Your task to perform on an android device: set the stopwatch Image 0: 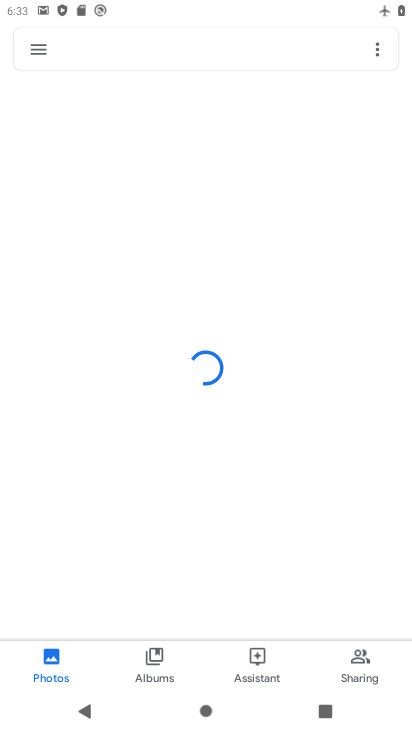
Step 0: press home button
Your task to perform on an android device: set the stopwatch Image 1: 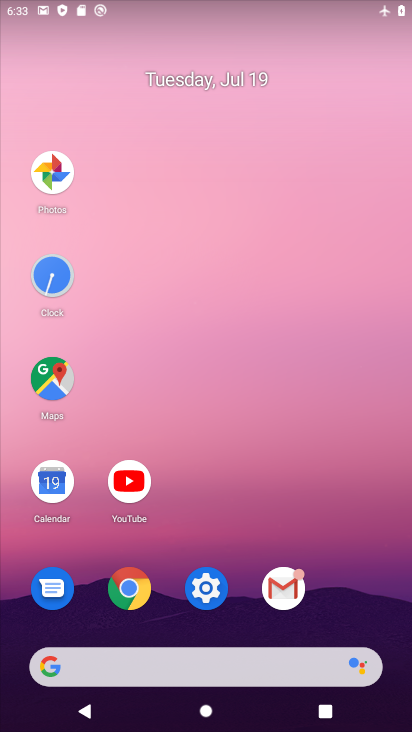
Step 1: click (53, 267)
Your task to perform on an android device: set the stopwatch Image 2: 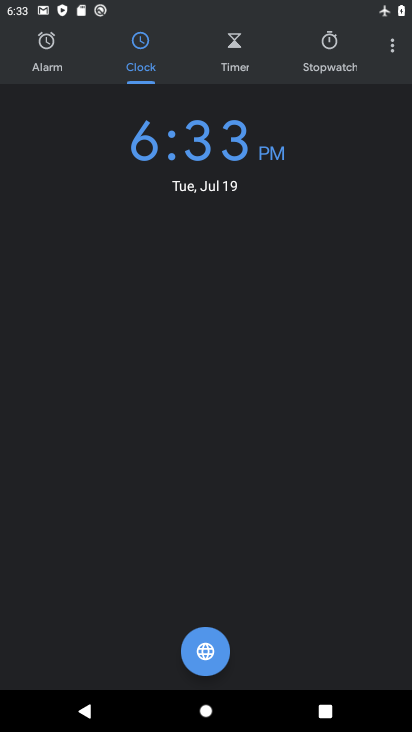
Step 2: click (332, 41)
Your task to perform on an android device: set the stopwatch Image 3: 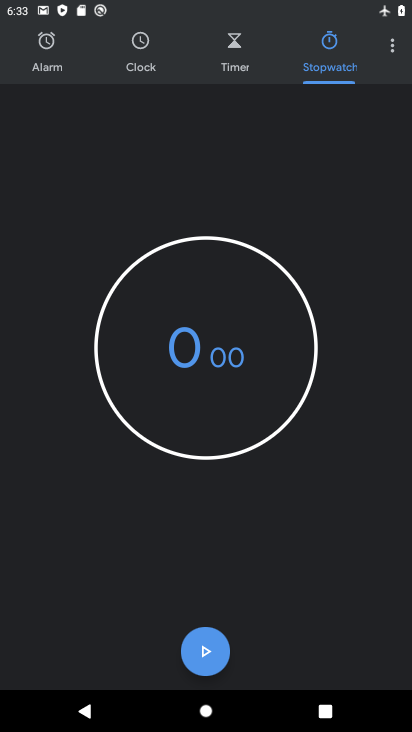
Step 3: task complete